Your task to perform on an android device: Go to notification settings Image 0: 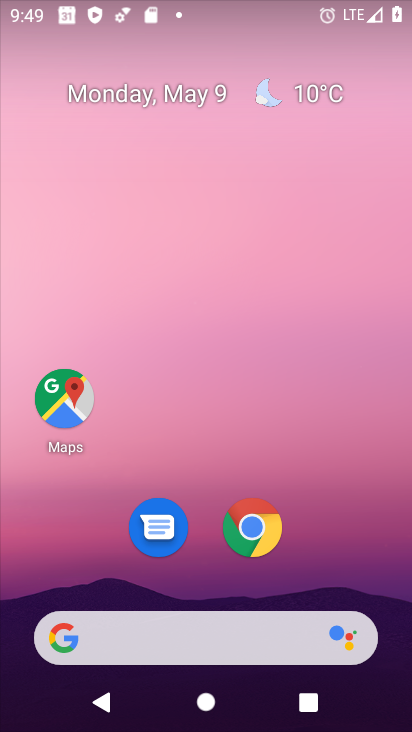
Step 0: drag from (387, 611) to (320, 72)
Your task to perform on an android device: Go to notification settings Image 1: 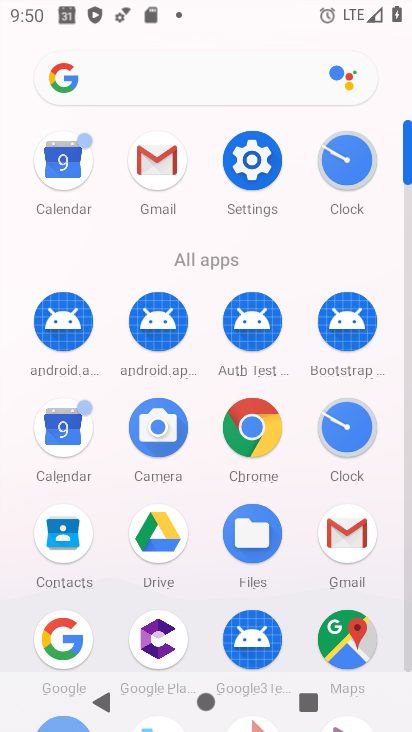
Step 1: click (252, 165)
Your task to perform on an android device: Go to notification settings Image 2: 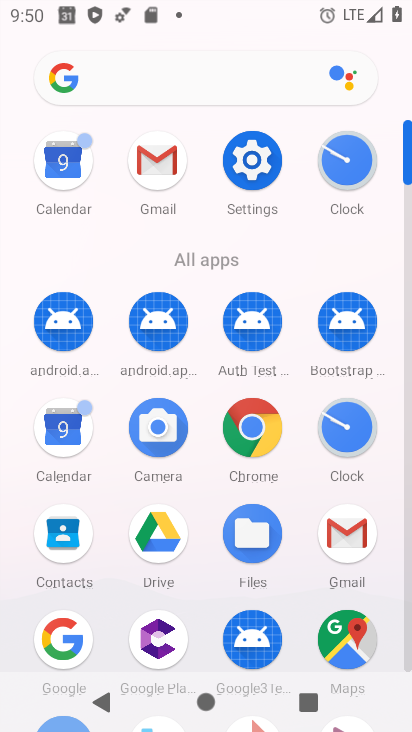
Step 2: click (252, 165)
Your task to perform on an android device: Go to notification settings Image 3: 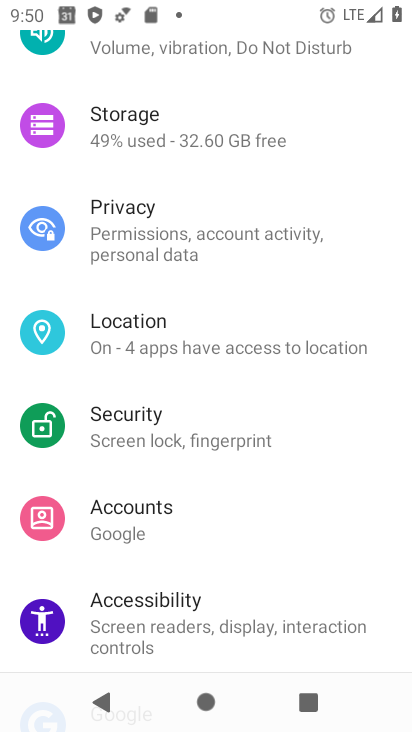
Step 3: drag from (311, 170) to (282, 519)
Your task to perform on an android device: Go to notification settings Image 4: 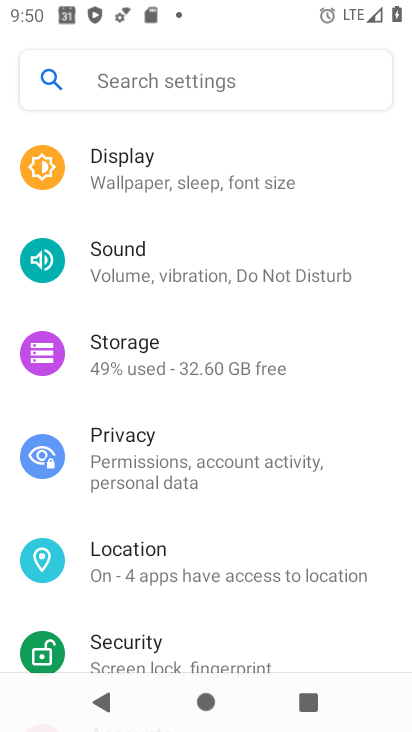
Step 4: drag from (339, 166) to (338, 493)
Your task to perform on an android device: Go to notification settings Image 5: 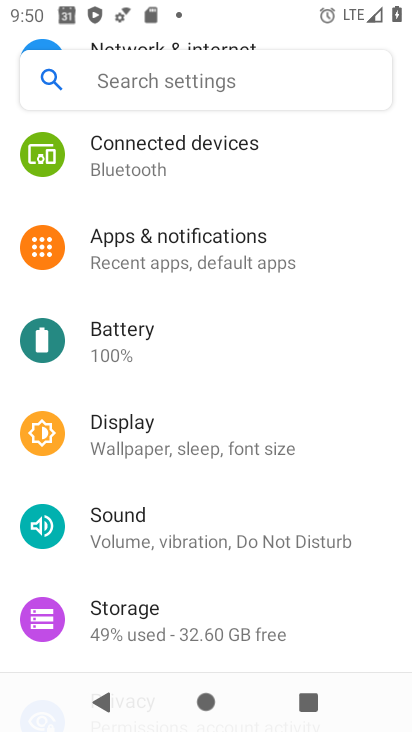
Step 5: click (146, 248)
Your task to perform on an android device: Go to notification settings Image 6: 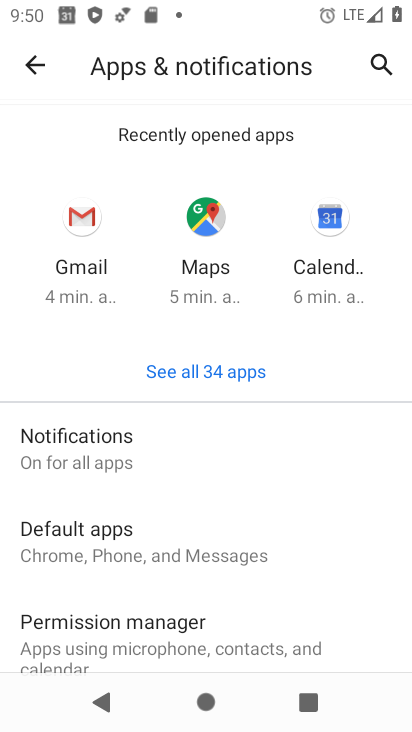
Step 6: click (65, 457)
Your task to perform on an android device: Go to notification settings Image 7: 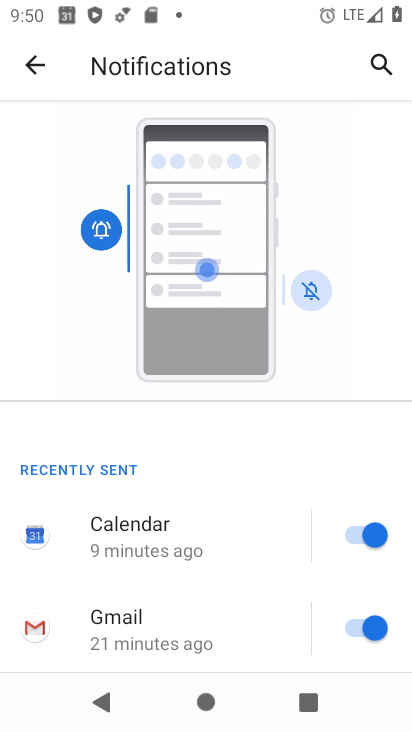
Step 7: task complete